Your task to perform on an android device: Open the web browser Image 0: 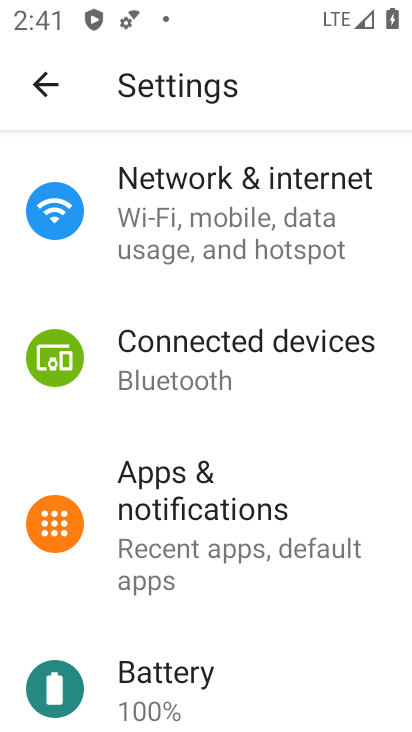
Step 0: press home button
Your task to perform on an android device: Open the web browser Image 1: 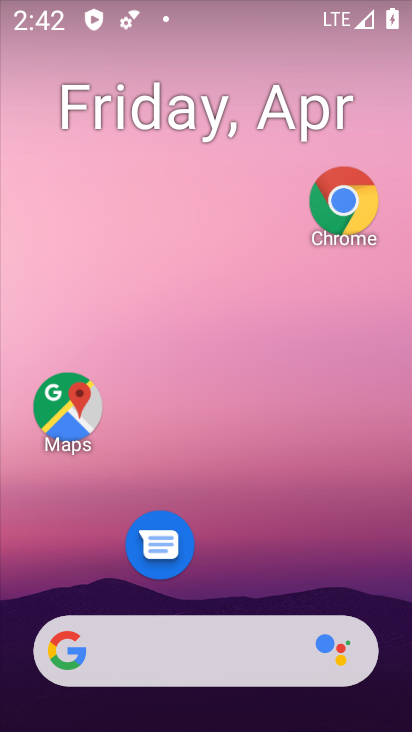
Step 1: click (345, 229)
Your task to perform on an android device: Open the web browser Image 2: 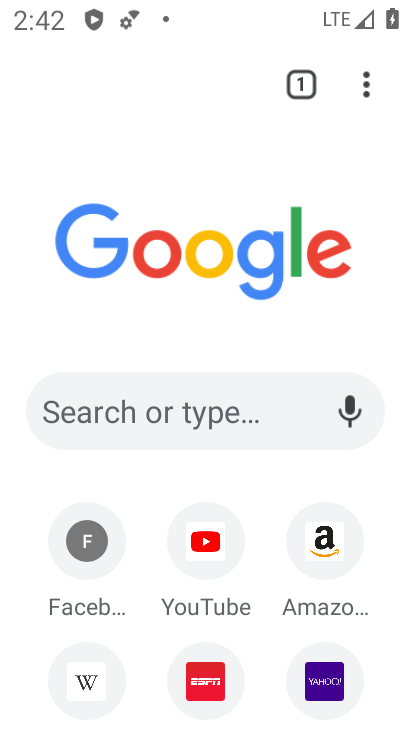
Step 2: task complete